Your task to perform on an android device: make emails show in primary in the gmail app Image 0: 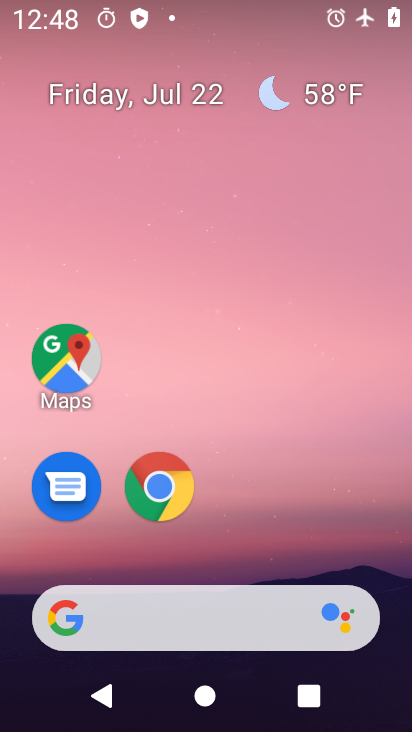
Step 0: drag from (327, 530) to (347, 159)
Your task to perform on an android device: make emails show in primary in the gmail app Image 1: 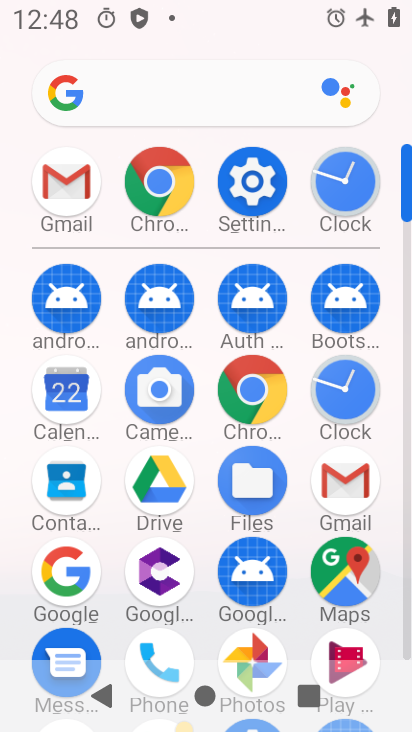
Step 1: click (357, 486)
Your task to perform on an android device: make emails show in primary in the gmail app Image 2: 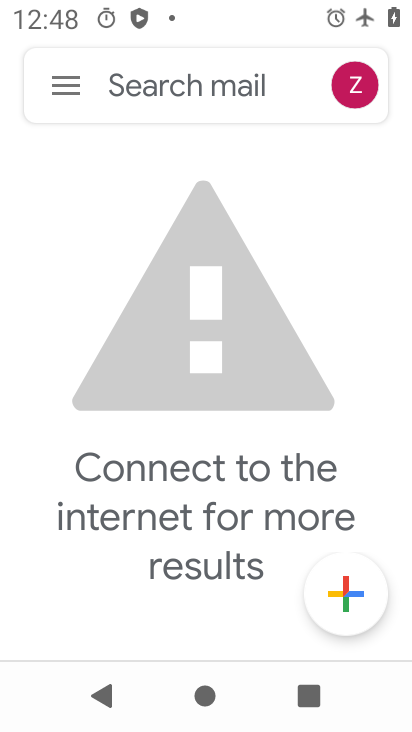
Step 2: click (71, 90)
Your task to perform on an android device: make emails show in primary in the gmail app Image 3: 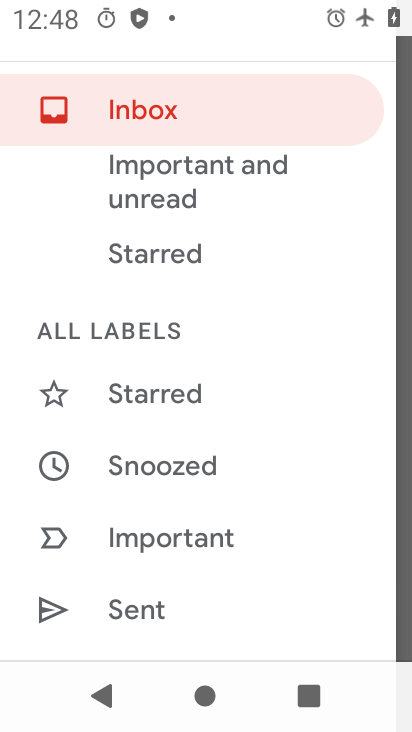
Step 3: drag from (290, 450) to (289, 318)
Your task to perform on an android device: make emails show in primary in the gmail app Image 4: 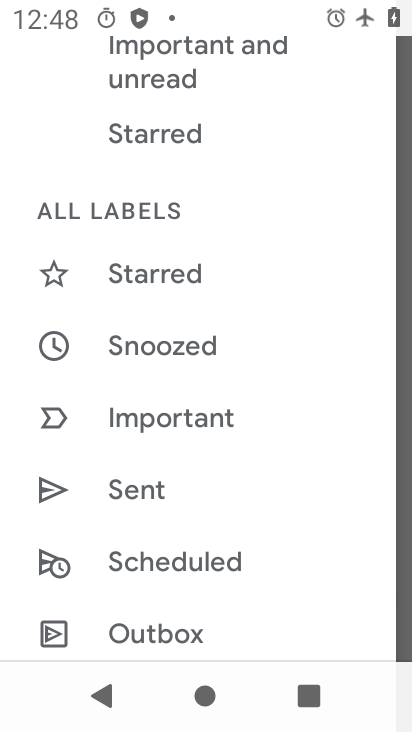
Step 4: drag from (295, 518) to (304, 374)
Your task to perform on an android device: make emails show in primary in the gmail app Image 5: 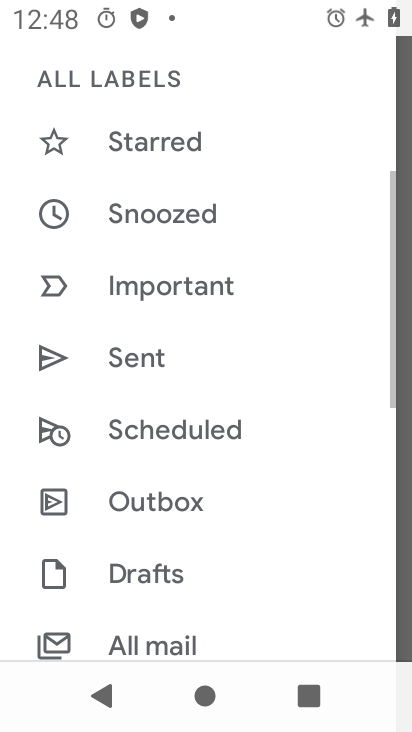
Step 5: drag from (304, 516) to (306, 411)
Your task to perform on an android device: make emails show in primary in the gmail app Image 6: 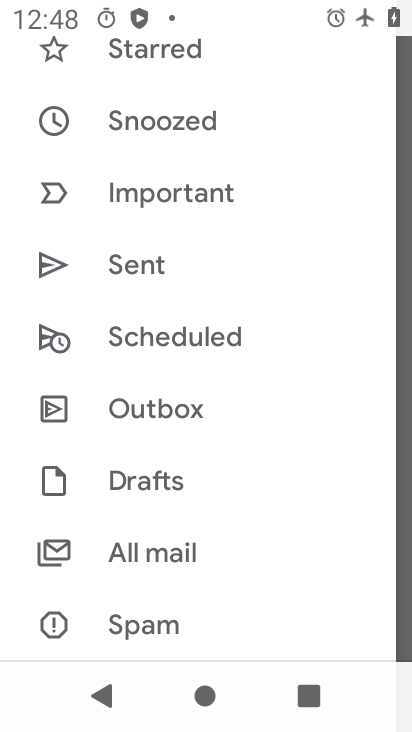
Step 6: drag from (292, 561) to (289, 419)
Your task to perform on an android device: make emails show in primary in the gmail app Image 7: 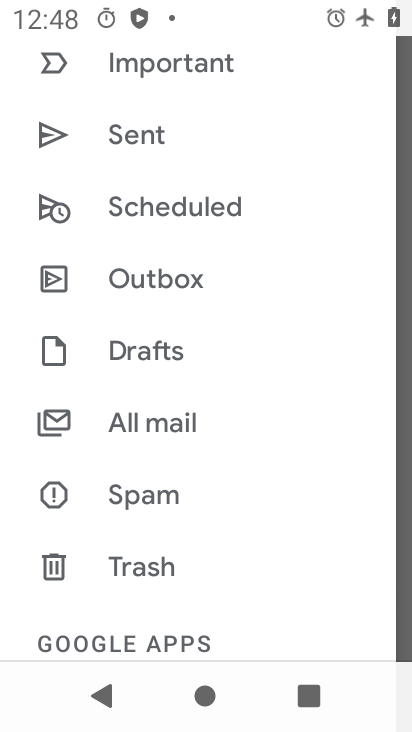
Step 7: drag from (295, 488) to (292, 376)
Your task to perform on an android device: make emails show in primary in the gmail app Image 8: 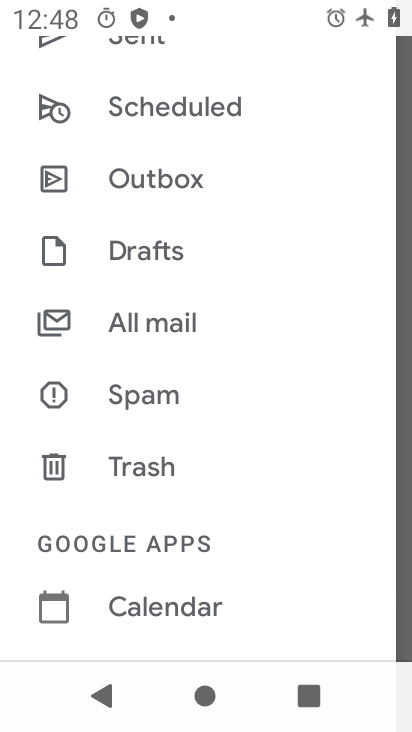
Step 8: drag from (290, 514) to (296, 413)
Your task to perform on an android device: make emails show in primary in the gmail app Image 9: 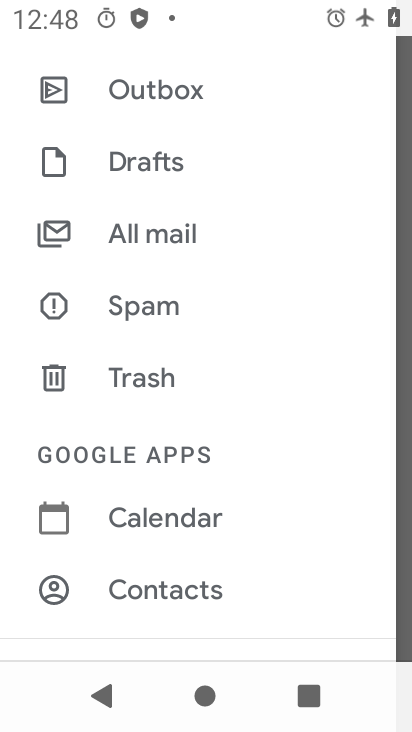
Step 9: drag from (302, 576) to (302, 456)
Your task to perform on an android device: make emails show in primary in the gmail app Image 10: 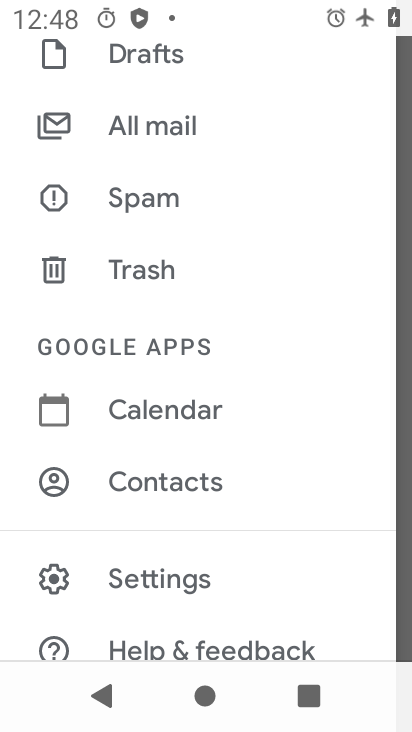
Step 10: drag from (303, 590) to (299, 462)
Your task to perform on an android device: make emails show in primary in the gmail app Image 11: 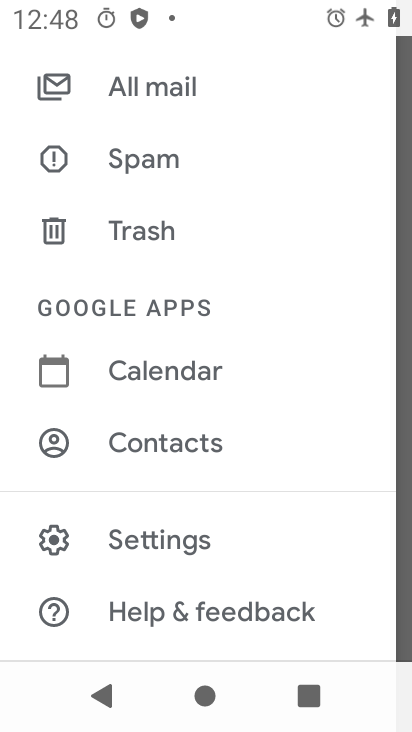
Step 11: click (239, 524)
Your task to perform on an android device: make emails show in primary in the gmail app Image 12: 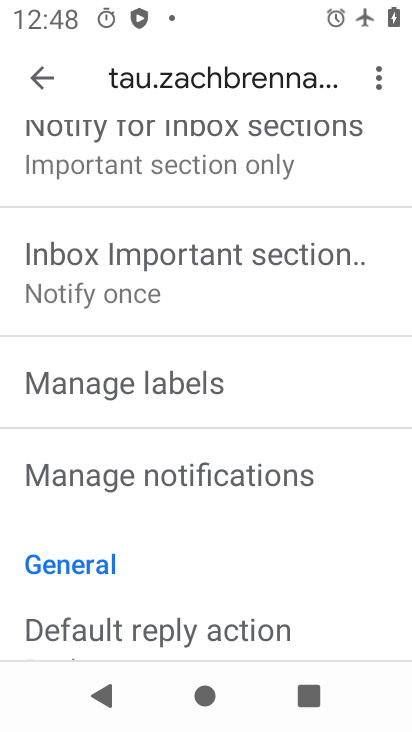
Step 12: drag from (292, 352) to (297, 445)
Your task to perform on an android device: make emails show in primary in the gmail app Image 13: 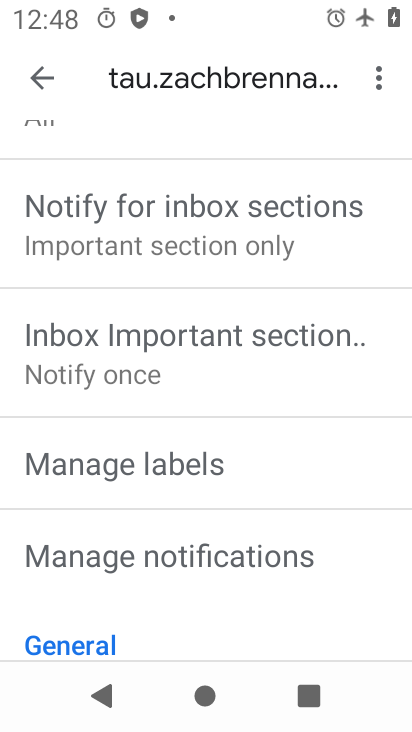
Step 13: drag from (297, 300) to (300, 412)
Your task to perform on an android device: make emails show in primary in the gmail app Image 14: 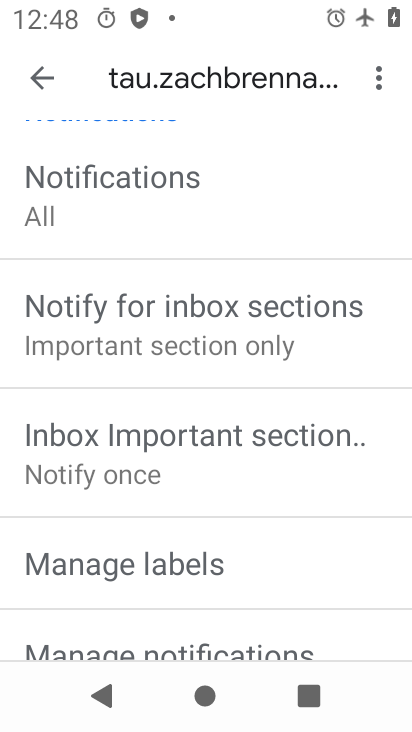
Step 14: drag from (326, 351) to (329, 463)
Your task to perform on an android device: make emails show in primary in the gmail app Image 15: 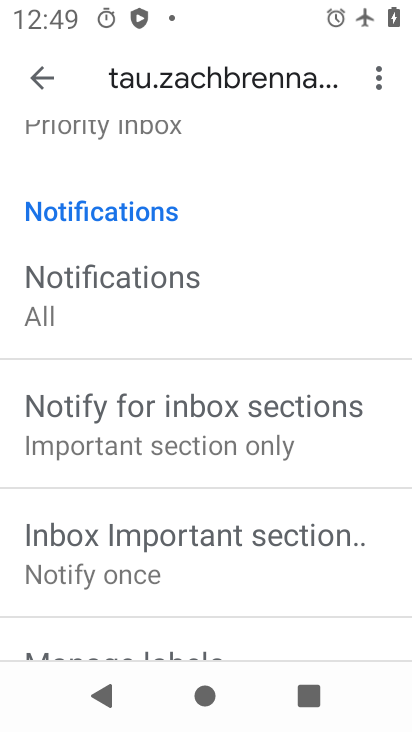
Step 15: drag from (325, 306) to (332, 424)
Your task to perform on an android device: make emails show in primary in the gmail app Image 16: 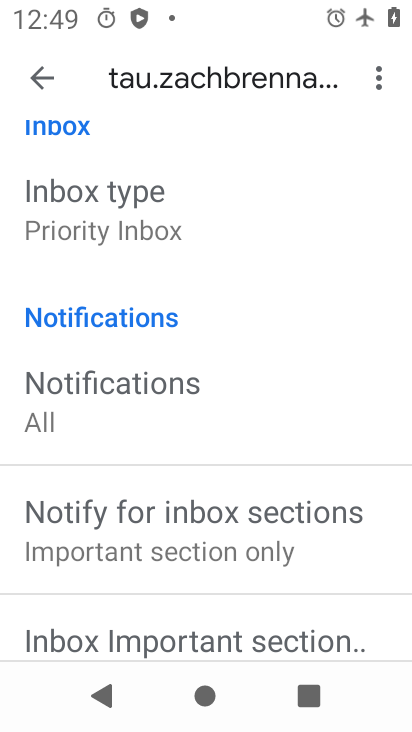
Step 16: drag from (319, 250) to (318, 408)
Your task to perform on an android device: make emails show in primary in the gmail app Image 17: 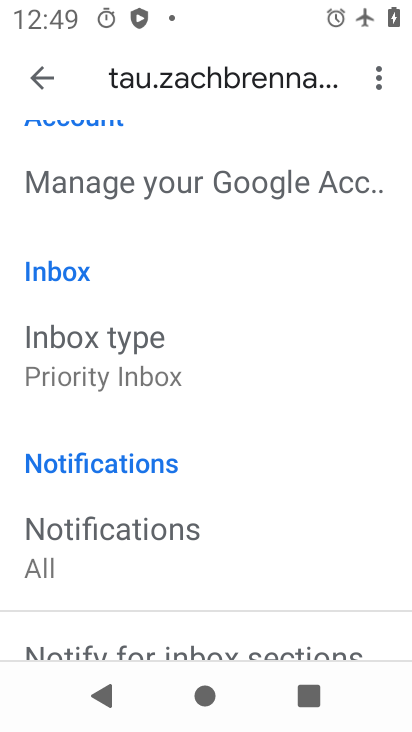
Step 17: drag from (262, 295) to (264, 403)
Your task to perform on an android device: make emails show in primary in the gmail app Image 18: 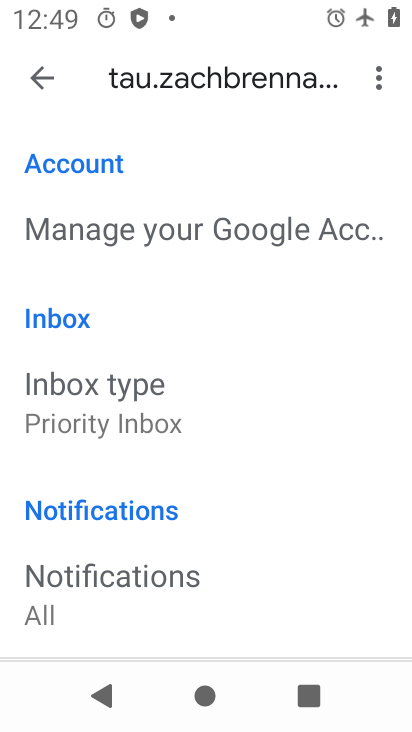
Step 18: click (147, 412)
Your task to perform on an android device: make emails show in primary in the gmail app Image 19: 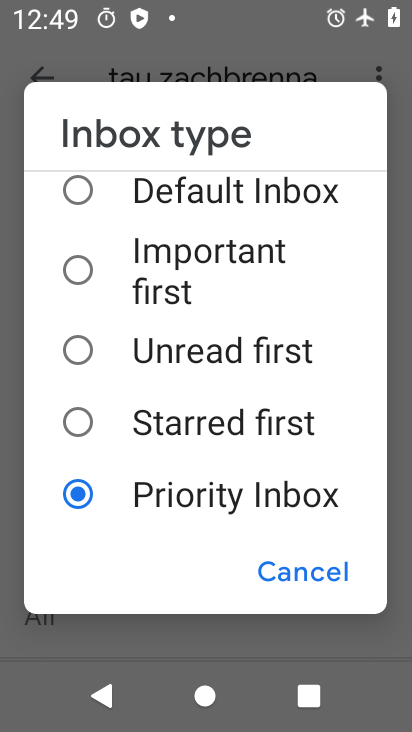
Step 19: click (118, 195)
Your task to perform on an android device: make emails show in primary in the gmail app Image 20: 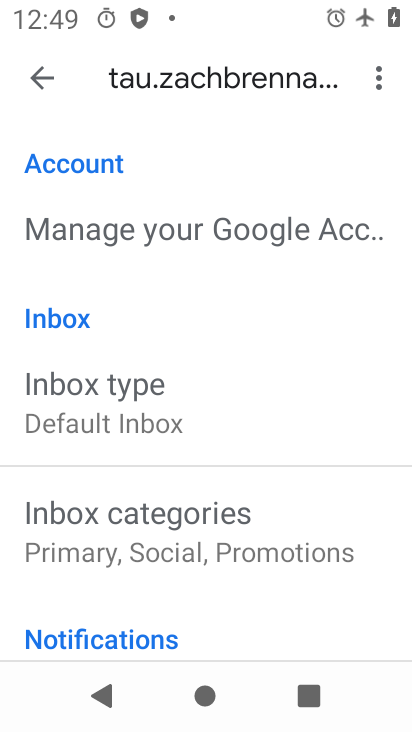
Step 20: click (153, 517)
Your task to perform on an android device: make emails show in primary in the gmail app Image 21: 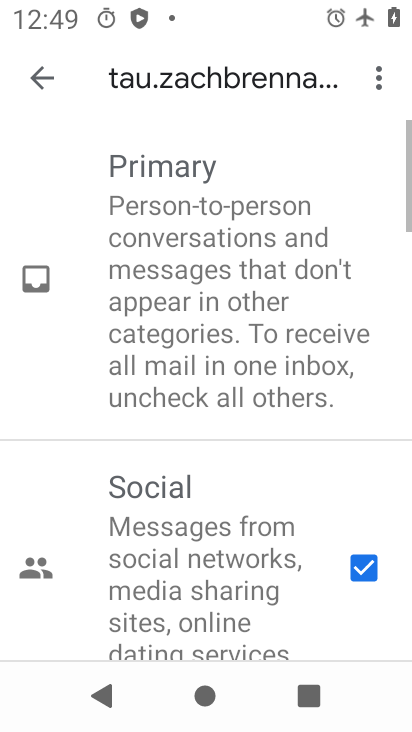
Step 21: click (361, 550)
Your task to perform on an android device: make emails show in primary in the gmail app Image 22: 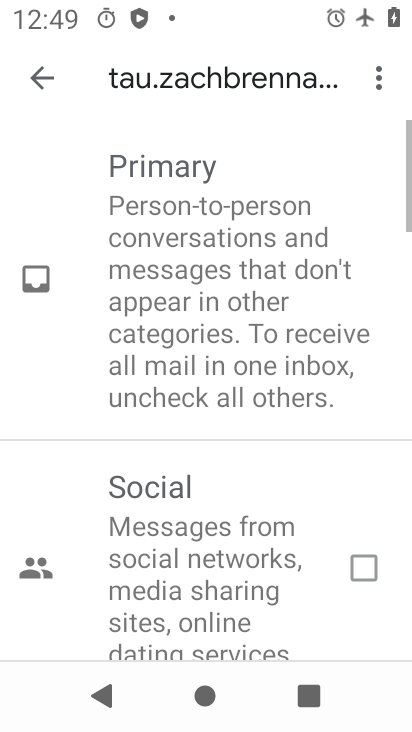
Step 22: drag from (295, 479) to (285, 221)
Your task to perform on an android device: make emails show in primary in the gmail app Image 23: 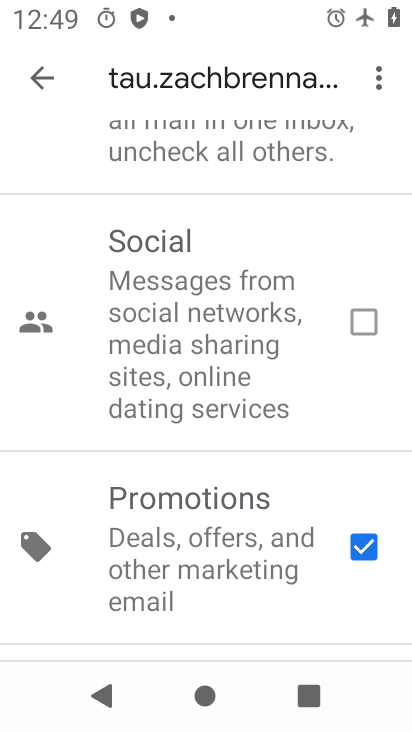
Step 23: click (375, 537)
Your task to perform on an android device: make emails show in primary in the gmail app Image 24: 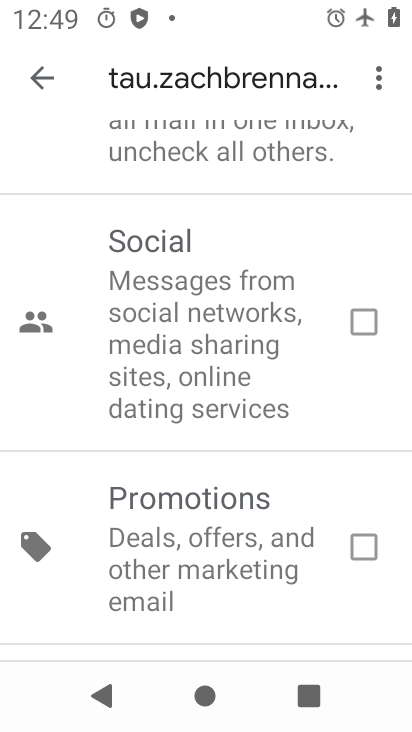
Step 24: task complete